Your task to perform on an android device: refresh tabs in the chrome app Image 0: 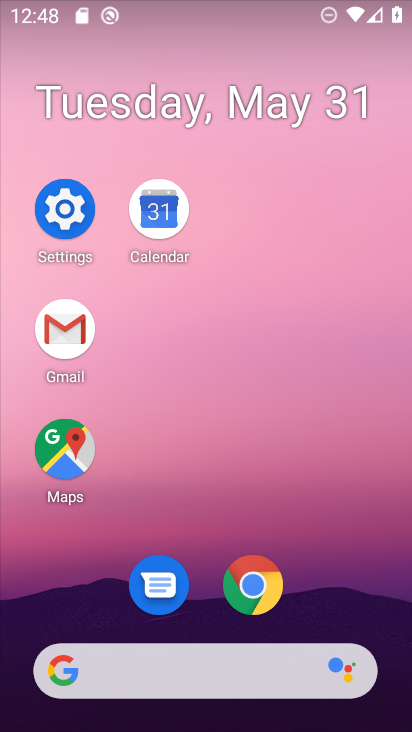
Step 0: click (263, 603)
Your task to perform on an android device: refresh tabs in the chrome app Image 1: 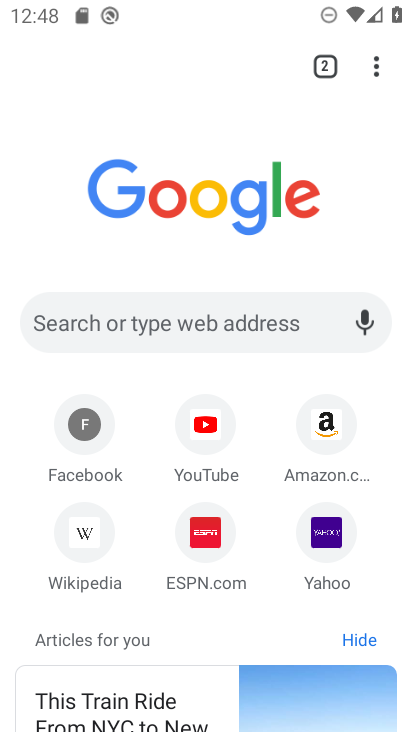
Step 1: click (388, 61)
Your task to perform on an android device: refresh tabs in the chrome app Image 2: 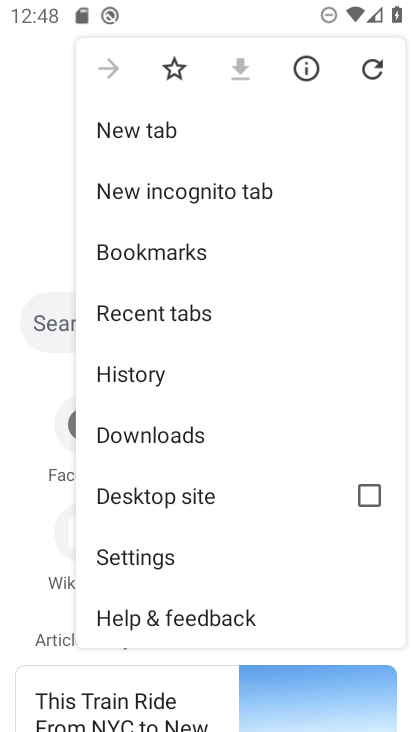
Step 2: click (355, 100)
Your task to perform on an android device: refresh tabs in the chrome app Image 3: 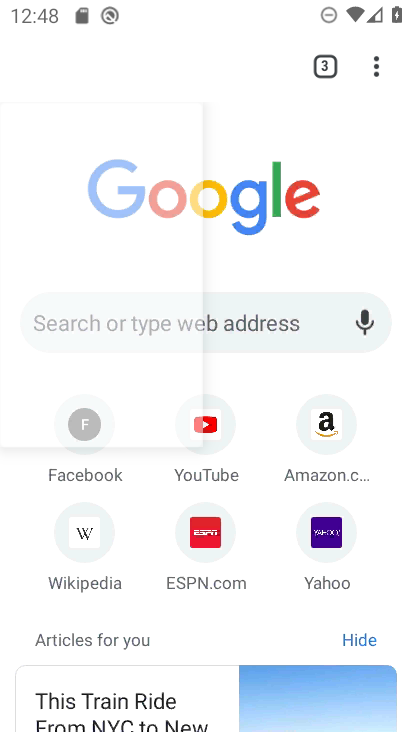
Step 3: click (369, 75)
Your task to perform on an android device: refresh tabs in the chrome app Image 4: 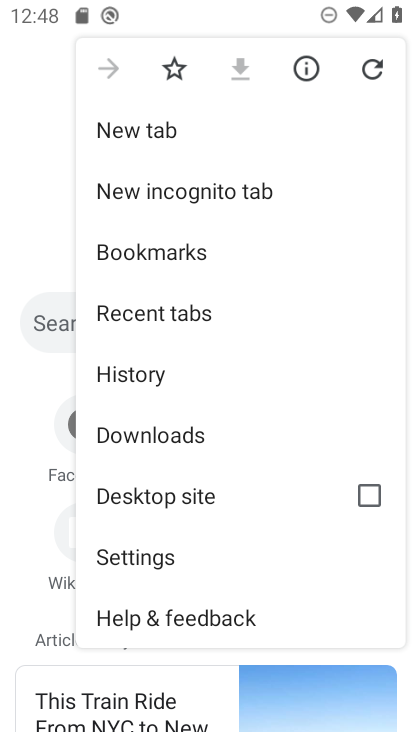
Step 4: task complete